Your task to perform on an android device: Go to Maps Image 0: 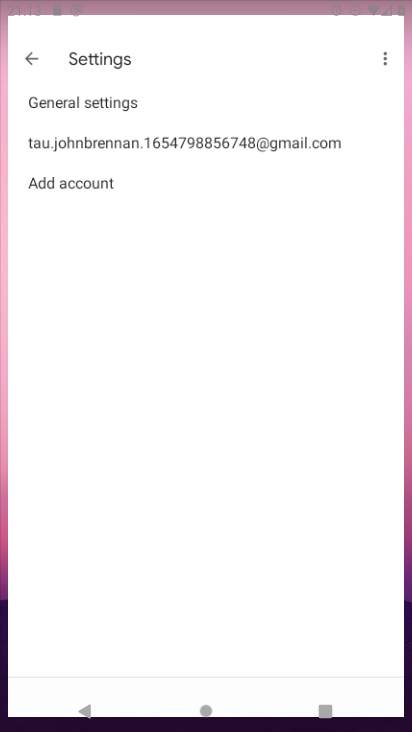
Step 0: drag from (242, 592) to (259, 355)
Your task to perform on an android device: Go to Maps Image 1: 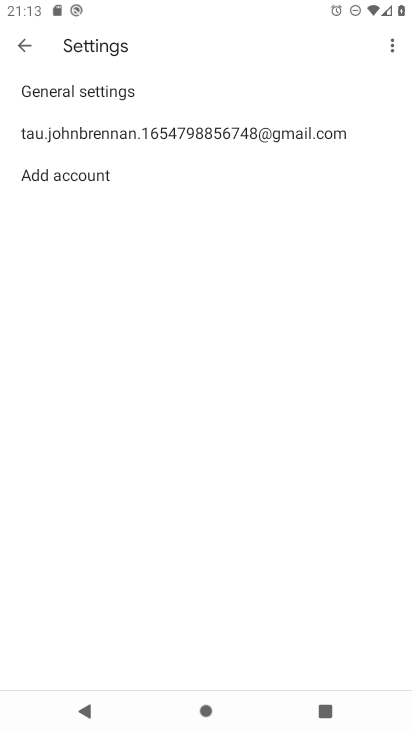
Step 1: press home button
Your task to perform on an android device: Go to Maps Image 2: 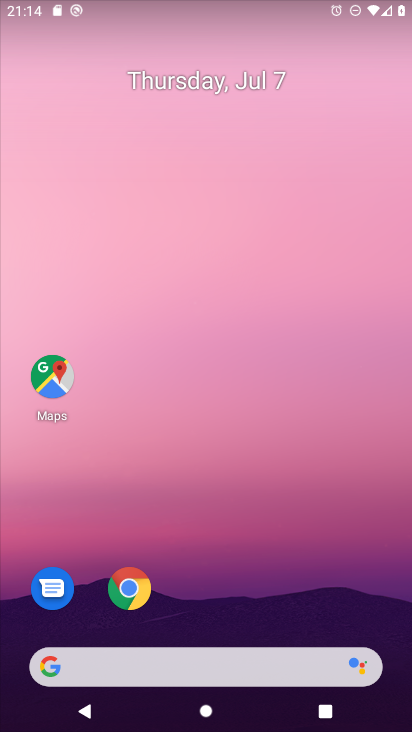
Step 2: drag from (270, 611) to (272, 253)
Your task to perform on an android device: Go to Maps Image 3: 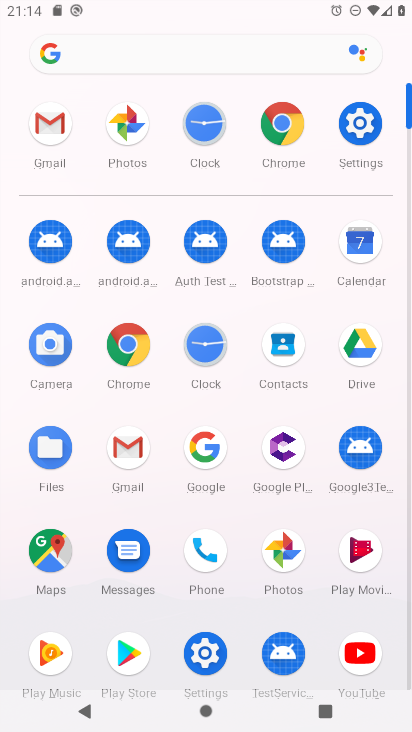
Step 3: click (51, 543)
Your task to perform on an android device: Go to Maps Image 4: 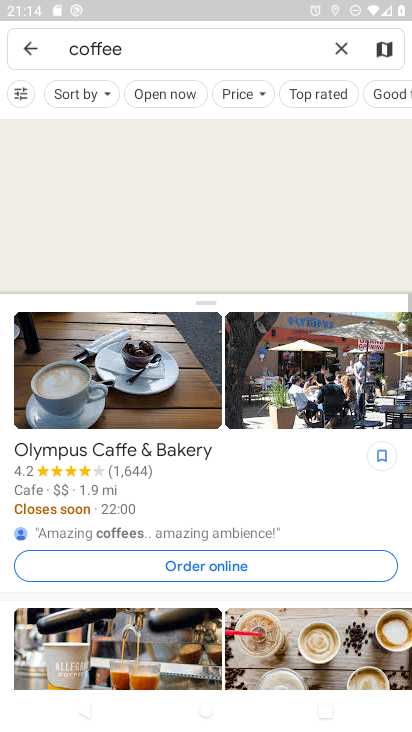
Step 4: click (346, 43)
Your task to perform on an android device: Go to Maps Image 5: 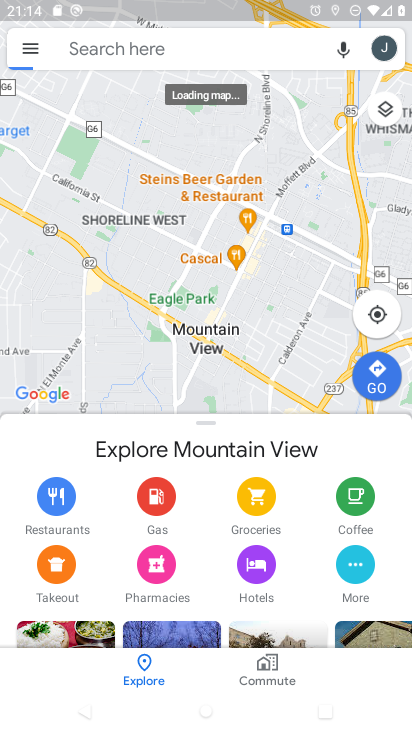
Step 5: task complete